Your task to perform on an android device: Go to Maps Image 0: 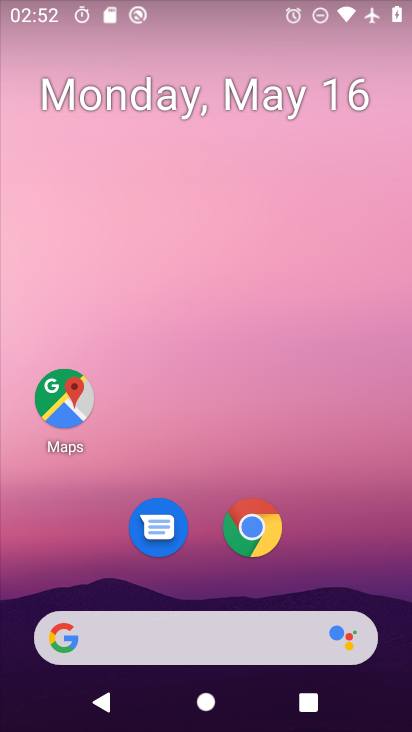
Step 0: click (65, 411)
Your task to perform on an android device: Go to Maps Image 1: 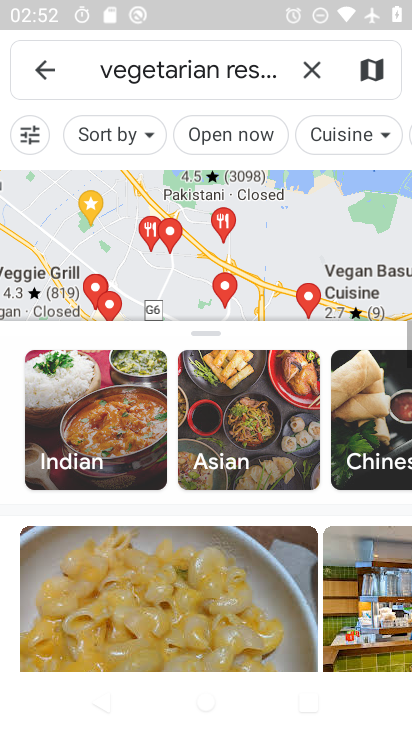
Step 1: click (41, 73)
Your task to perform on an android device: Go to Maps Image 2: 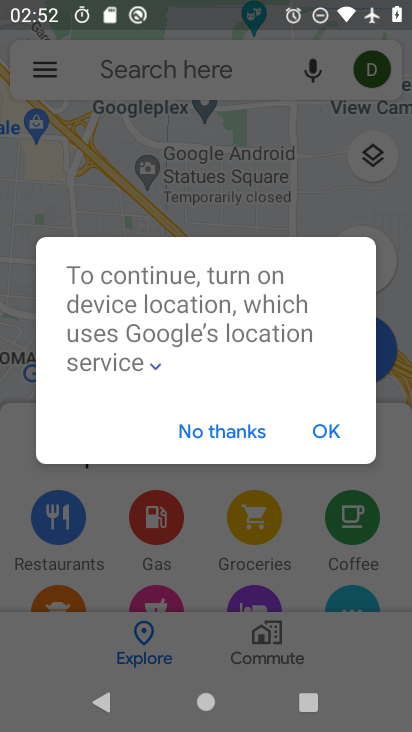
Step 2: click (335, 431)
Your task to perform on an android device: Go to Maps Image 3: 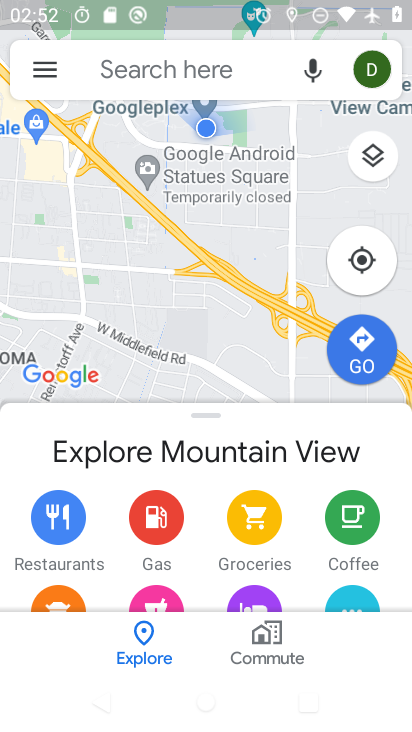
Step 3: task complete